Your task to perform on an android device: open app "LinkedIn" (install if not already installed) and go to login screen Image 0: 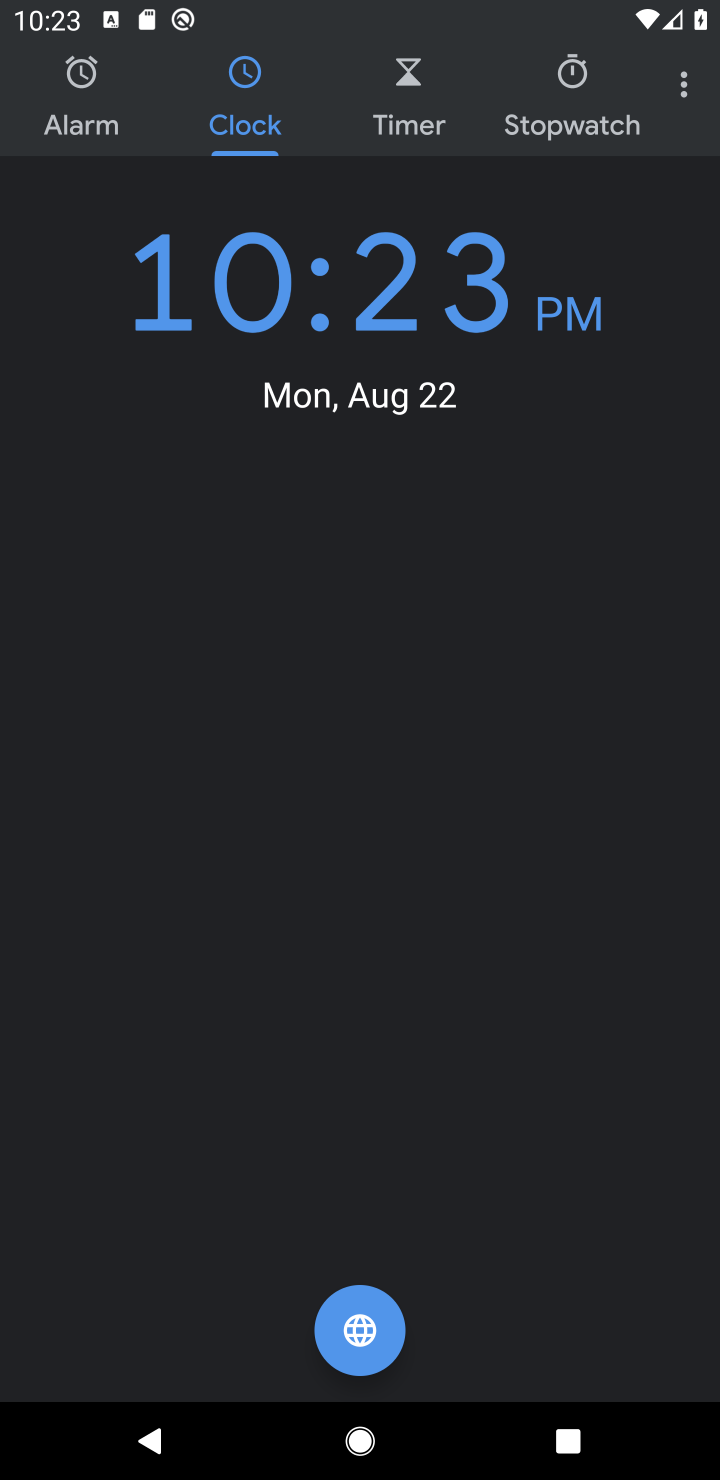
Step 0: press back button
Your task to perform on an android device: open app "LinkedIn" (install if not already installed) and go to login screen Image 1: 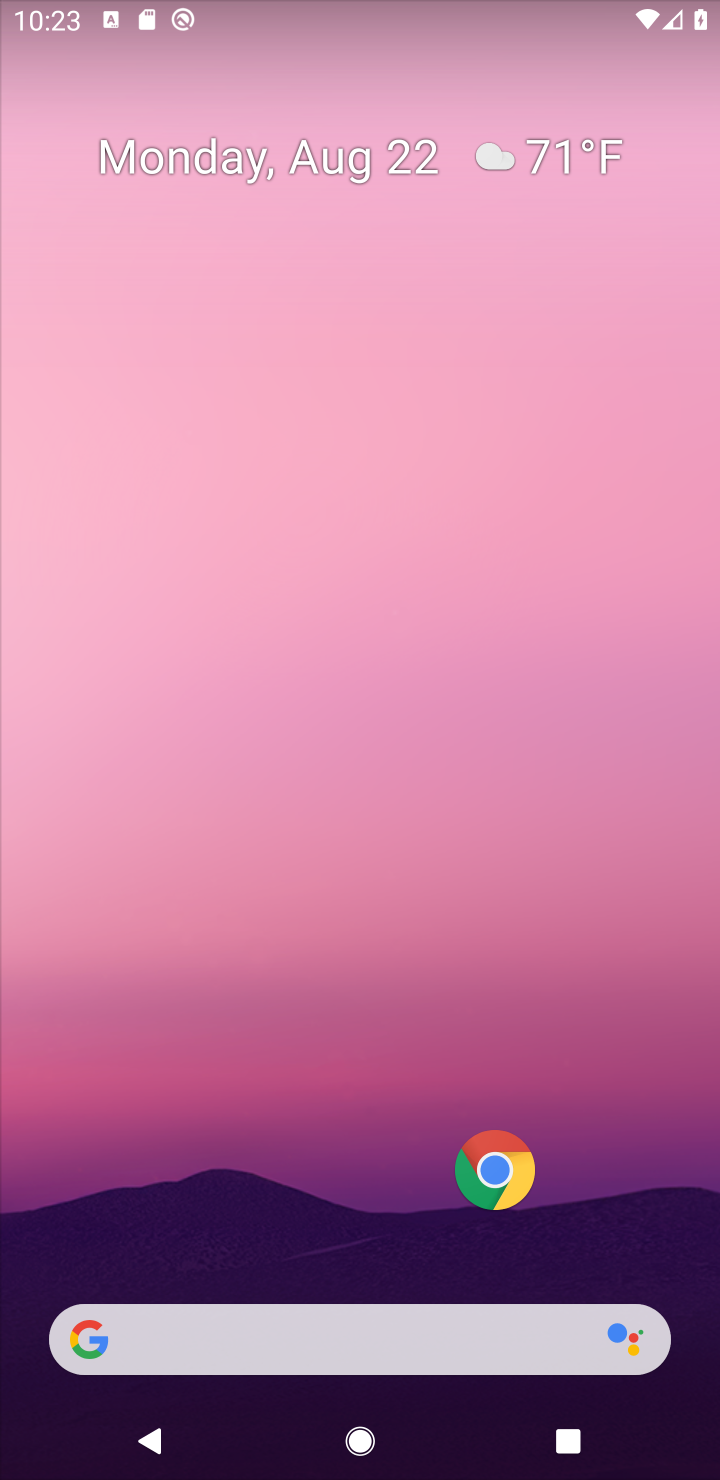
Step 1: drag from (374, 631) to (487, 28)
Your task to perform on an android device: open app "LinkedIn" (install if not already installed) and go to login screen Image 2: 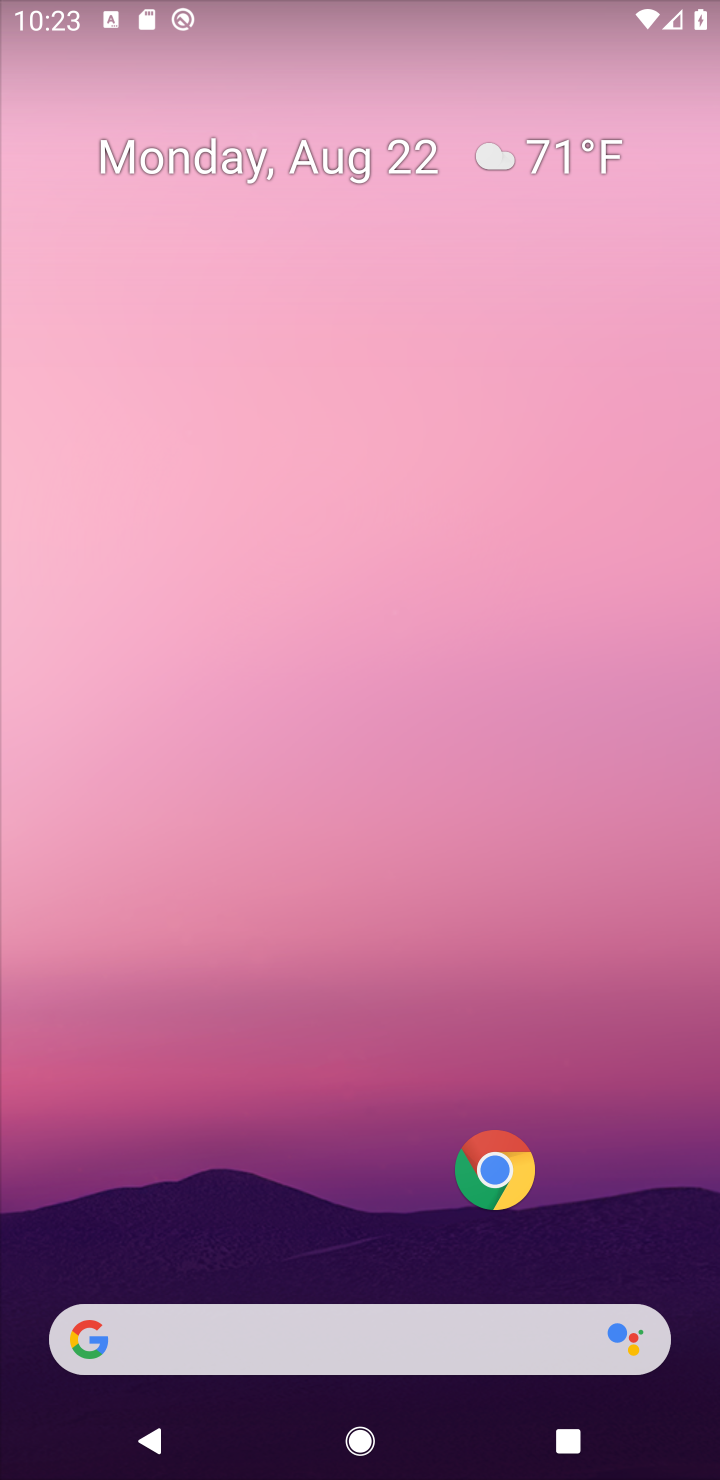
Step 2: drag from (217, 1234) to (388, 73)
Your task to perform on an android device: open app "LinkedIn" (install if not already installed) and go to login screen Image 3: 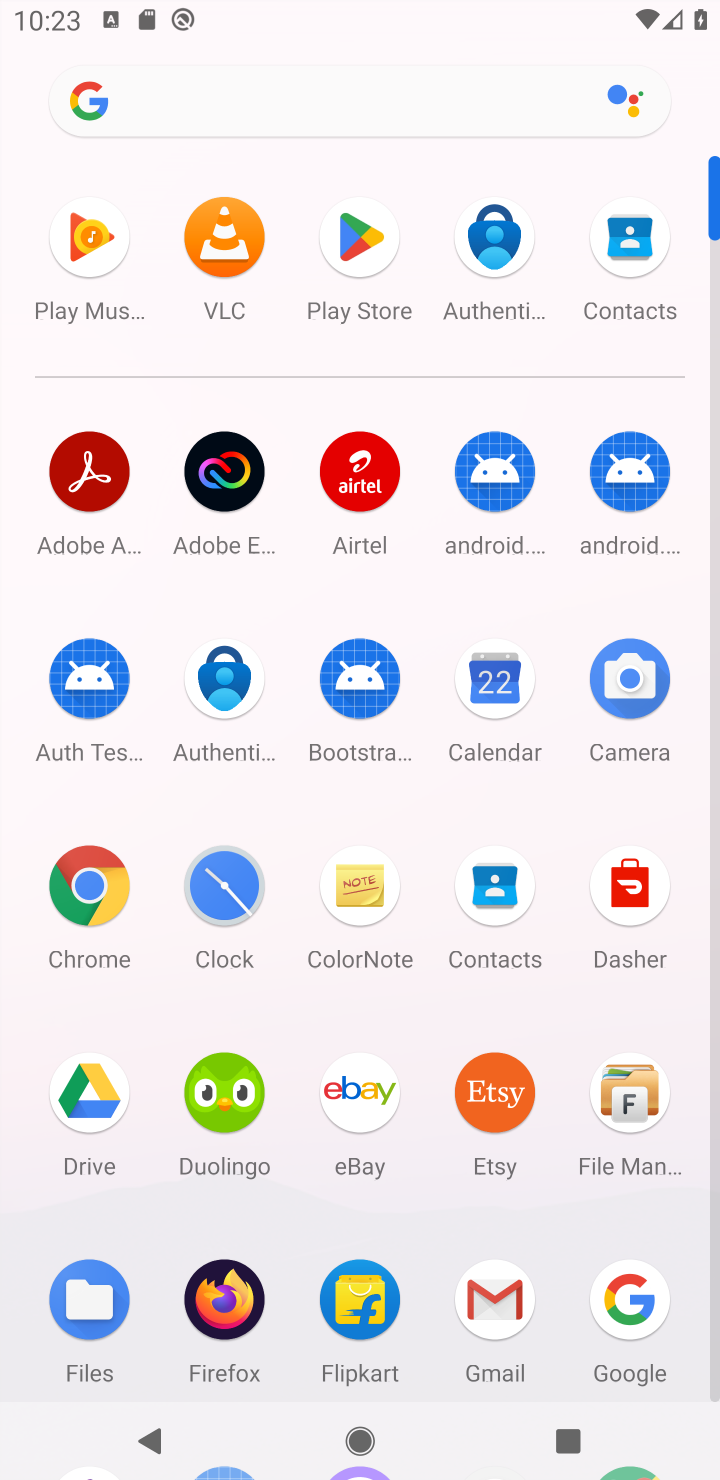
Step 3: click (362, 227)
Your task to perform on an android device: open app "LinkedIn" (install if not already installed) and go to login screen Image 4: 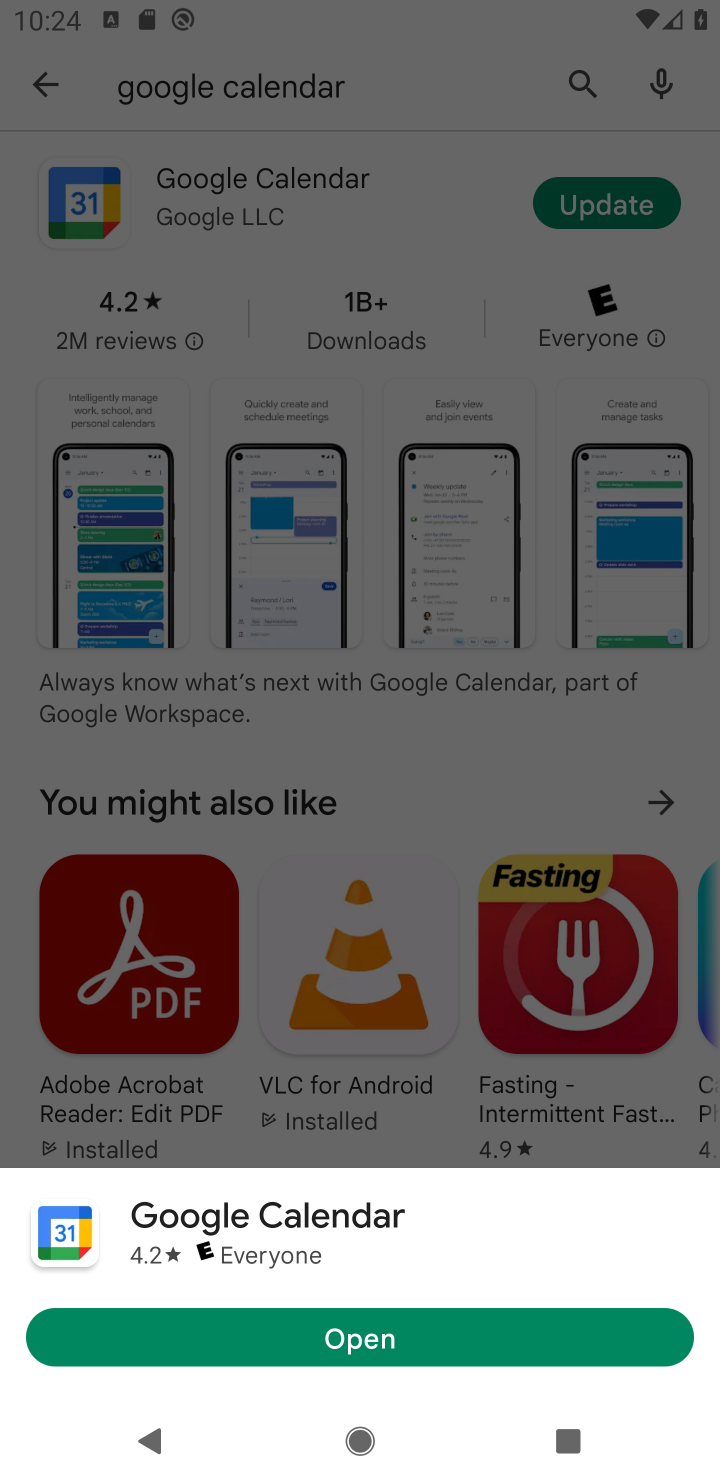
Step 4: click (586, 65)
Your task to perform on an android device: open app "LinkedIn" (install if not already installed) and go to login screen Image 5: 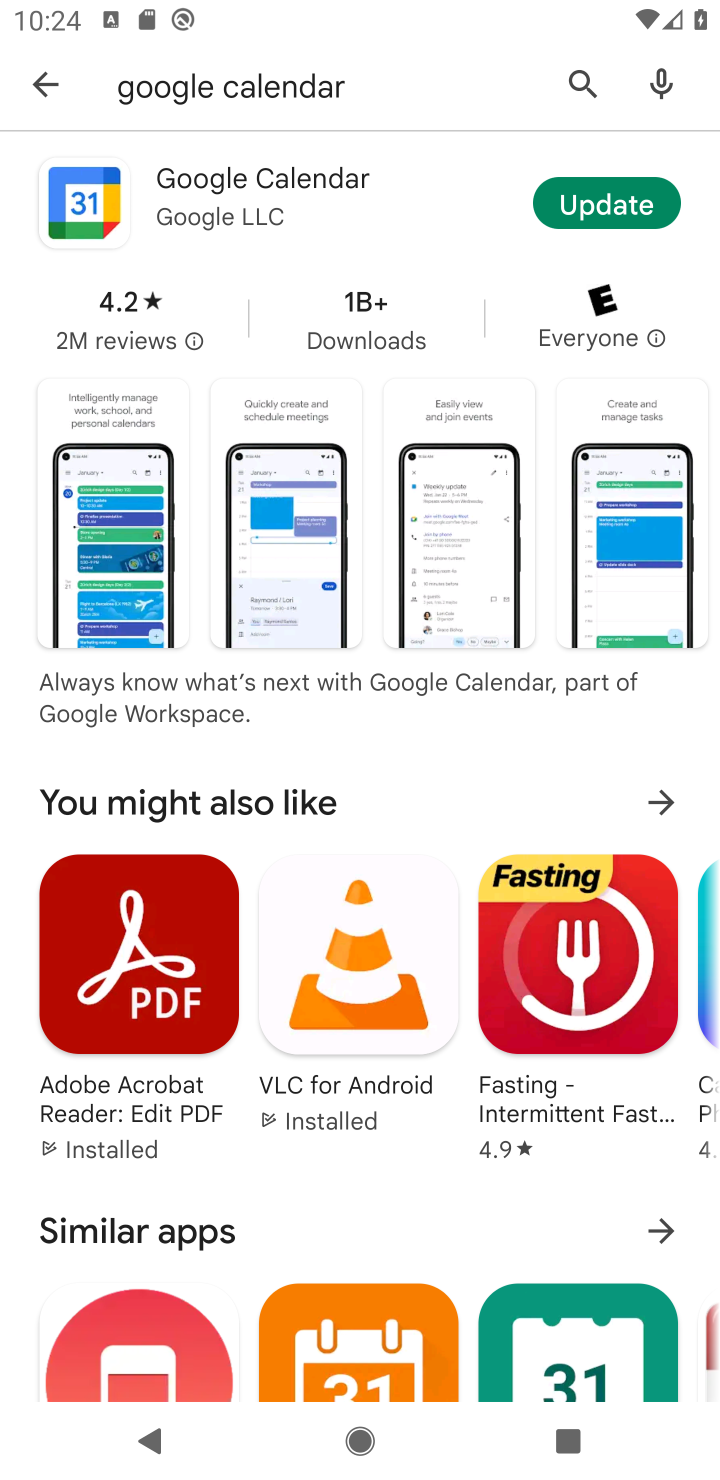
Step 5: click (586, 73)
Your task to perform on an android device: open app "LinkedIn" (install if not already installed) and go to login screen Image 6: 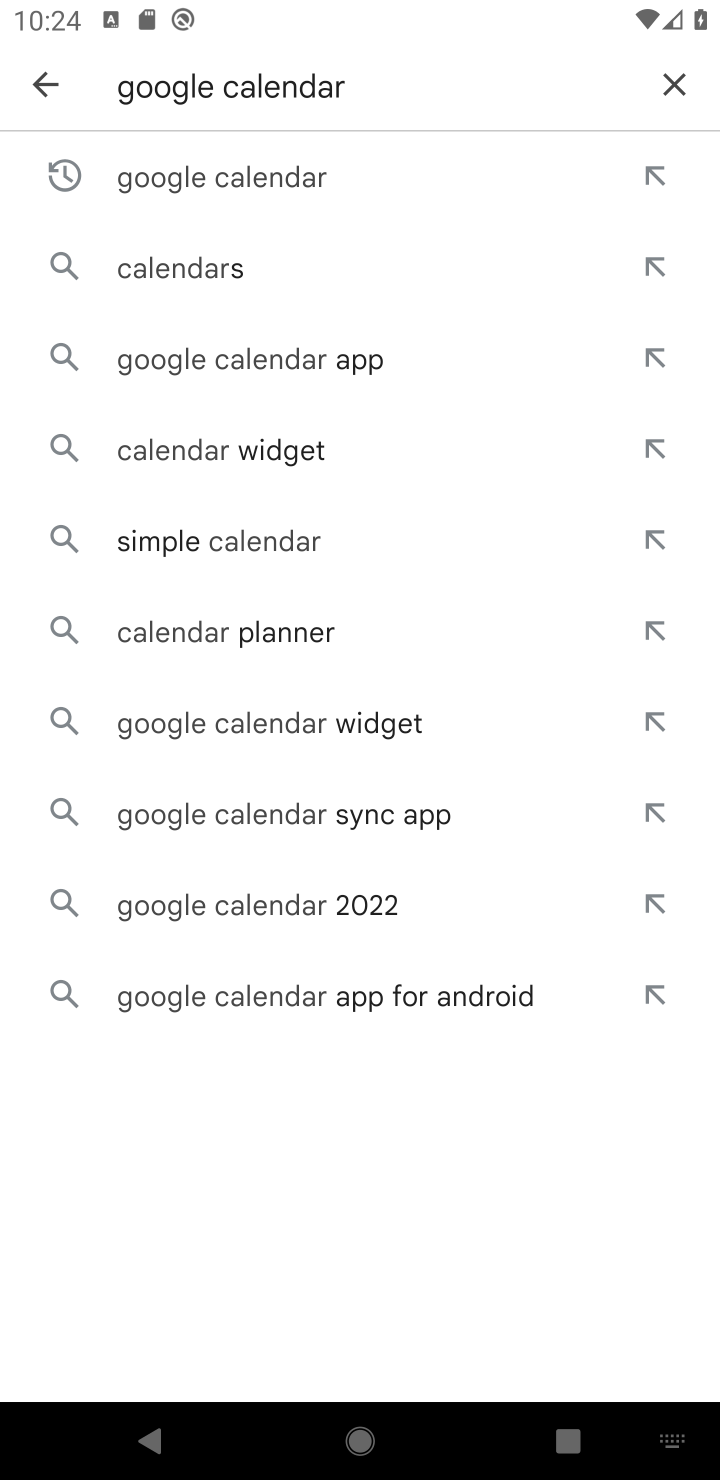
Step 6: click (695, 73)
Your task to perform on an android device: open app "LinkedIn" (install if not already installed) and go to login screen Image 7: 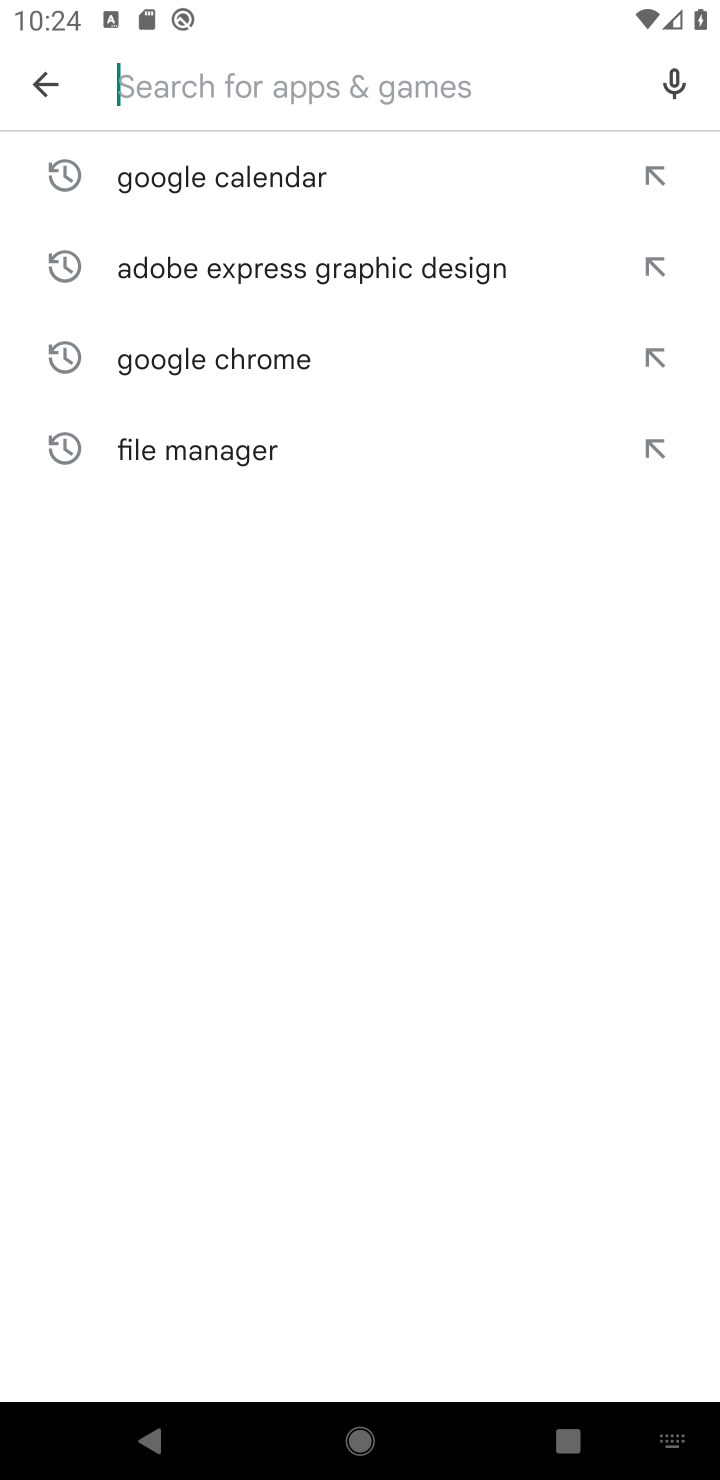
Step 7: click (169, 69)
Your task to perform on an android device: open app "LinkedIn" (install if not already installed) and go to login screen Image 8: 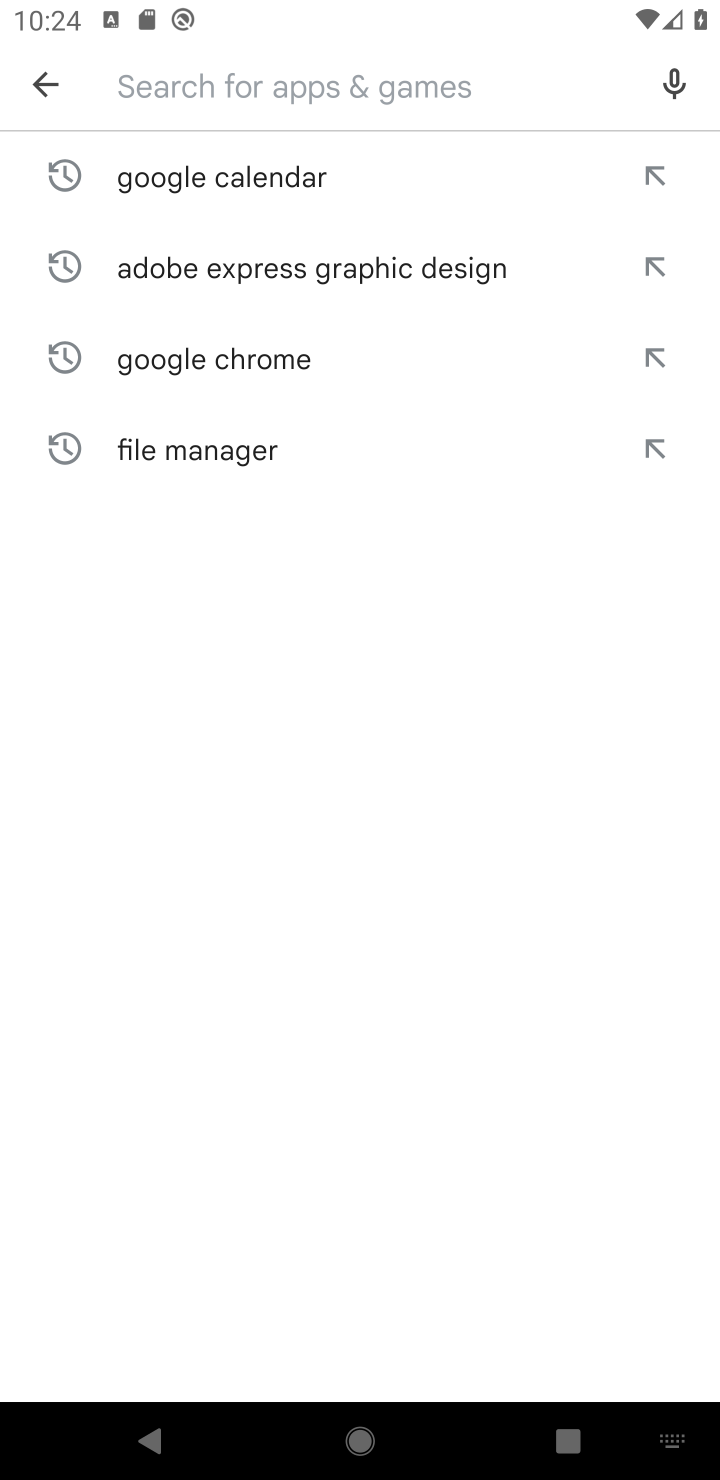
Step 8: type "LinkedIn"
Your task to perform on an android device: open app "LinkedIn" (install if not already installed) and go to login screen Image 9: 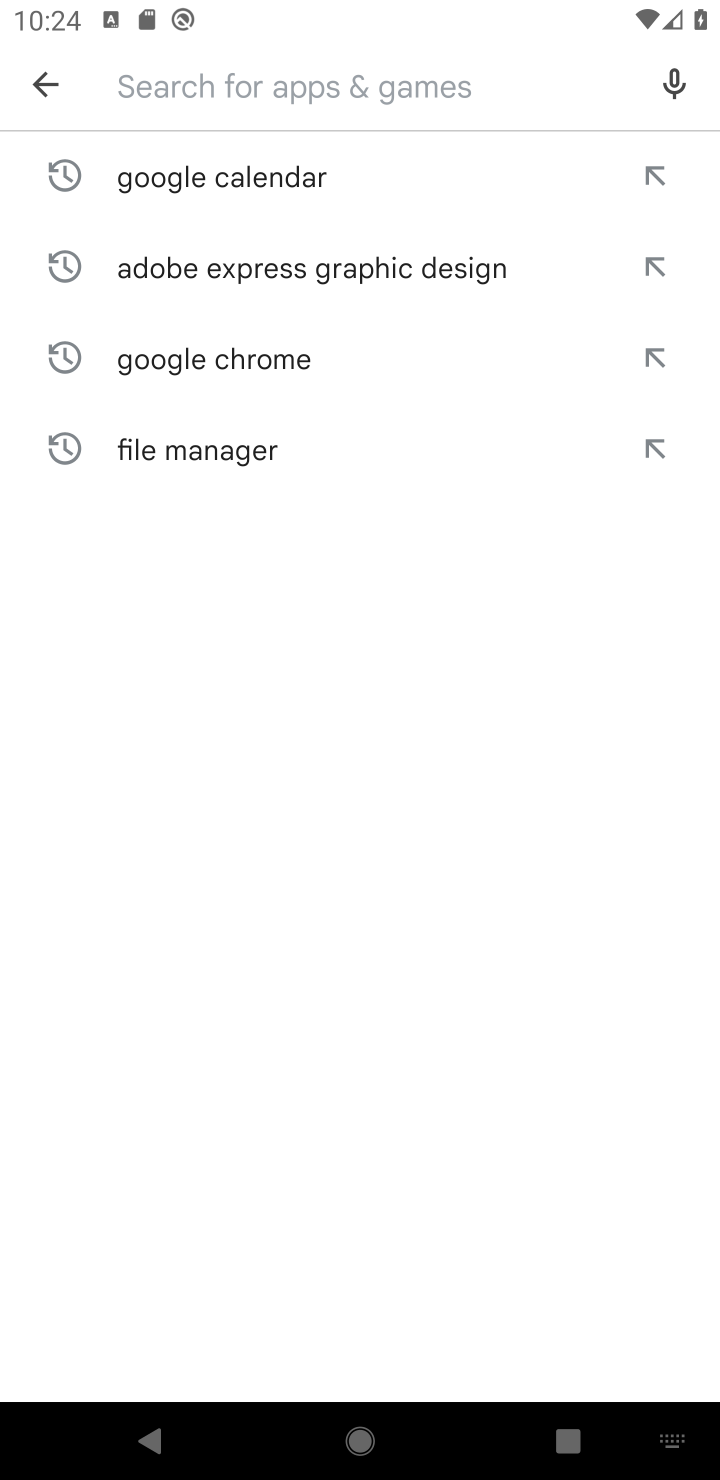
Step 9: click (381, 944)
Your task to perform on an android device: open app "LinkedIn" (install if not already installed) and go to login screen Image 10: 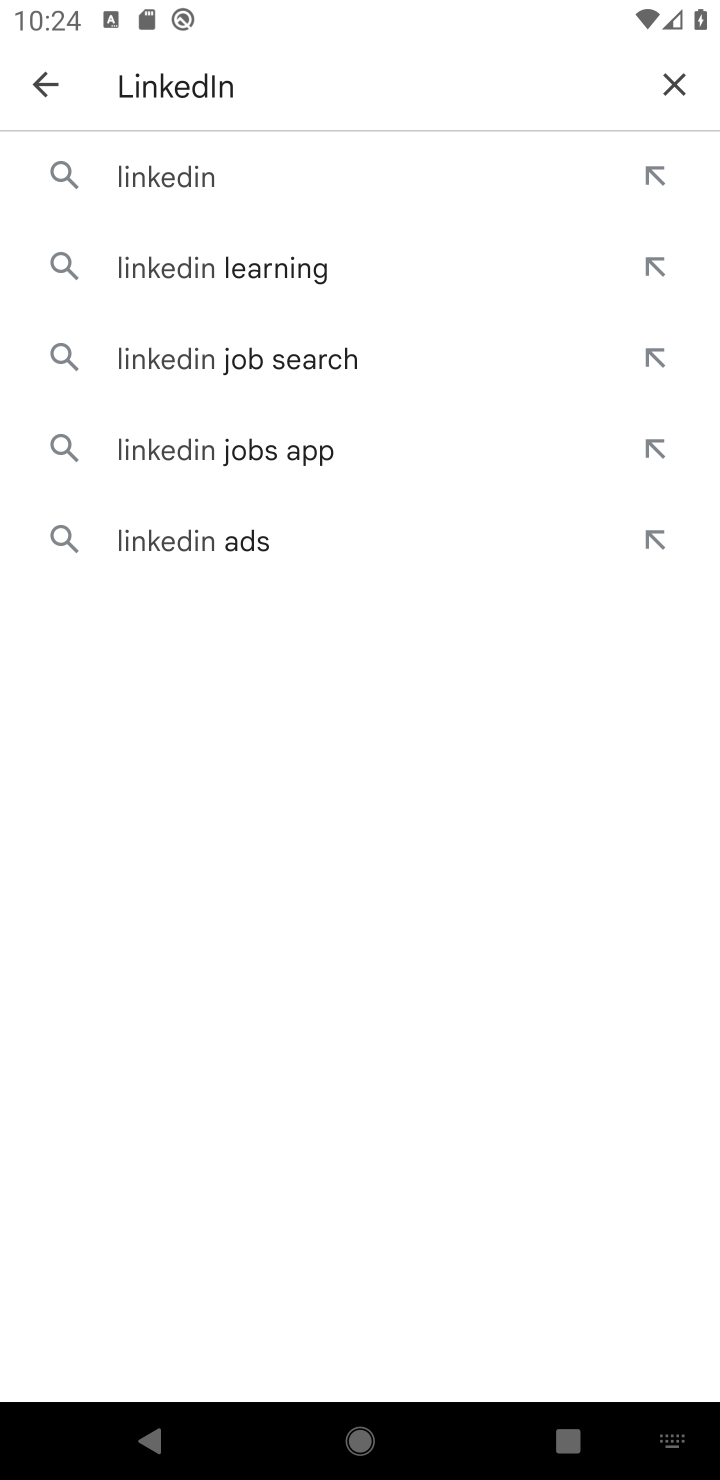
Step 10: click (195, 173)
Your task to perform on an android device: open app "LinkedIn" (install if not already installed) and go to login screen Image 11: 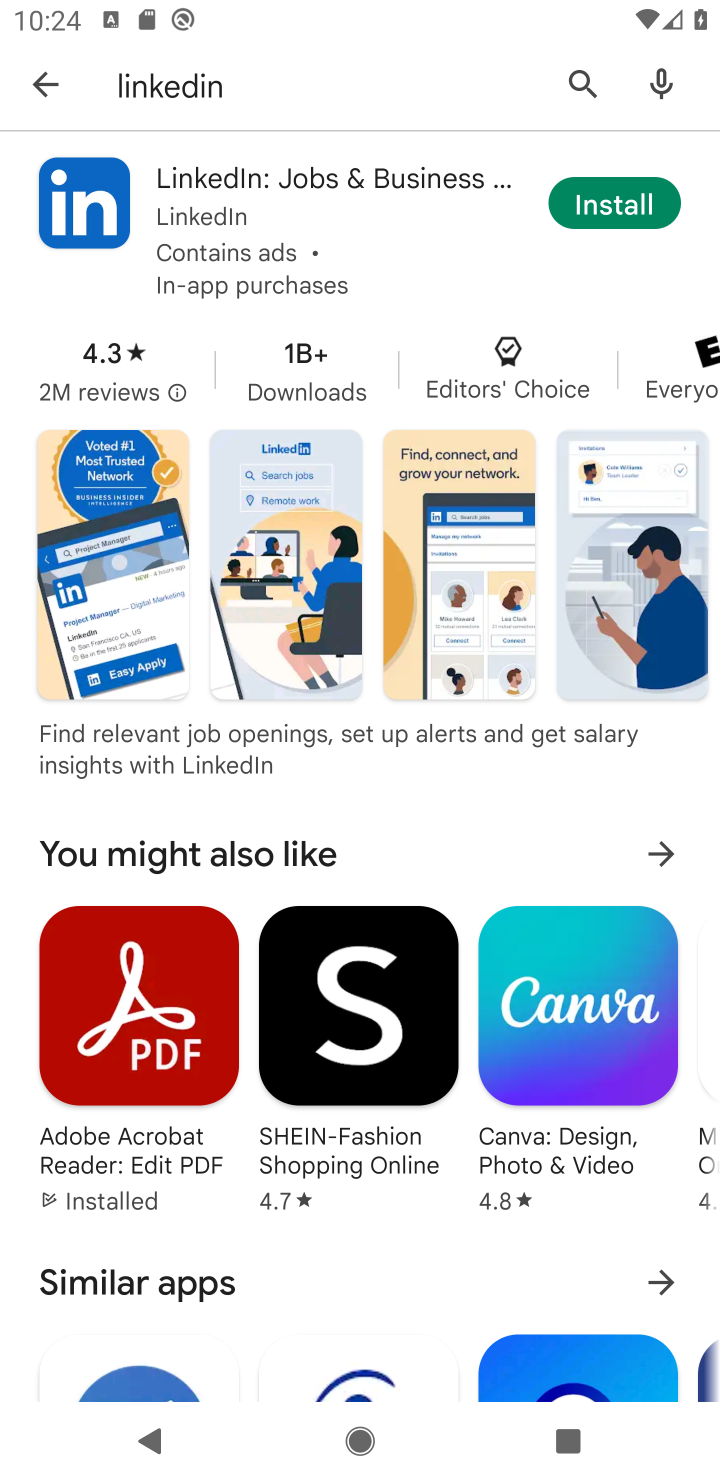
Step 11: click (589, 195)
Your task to perform on an android device: open app "LinkedIn" (install if not already installed) and go to login screen Image 12: 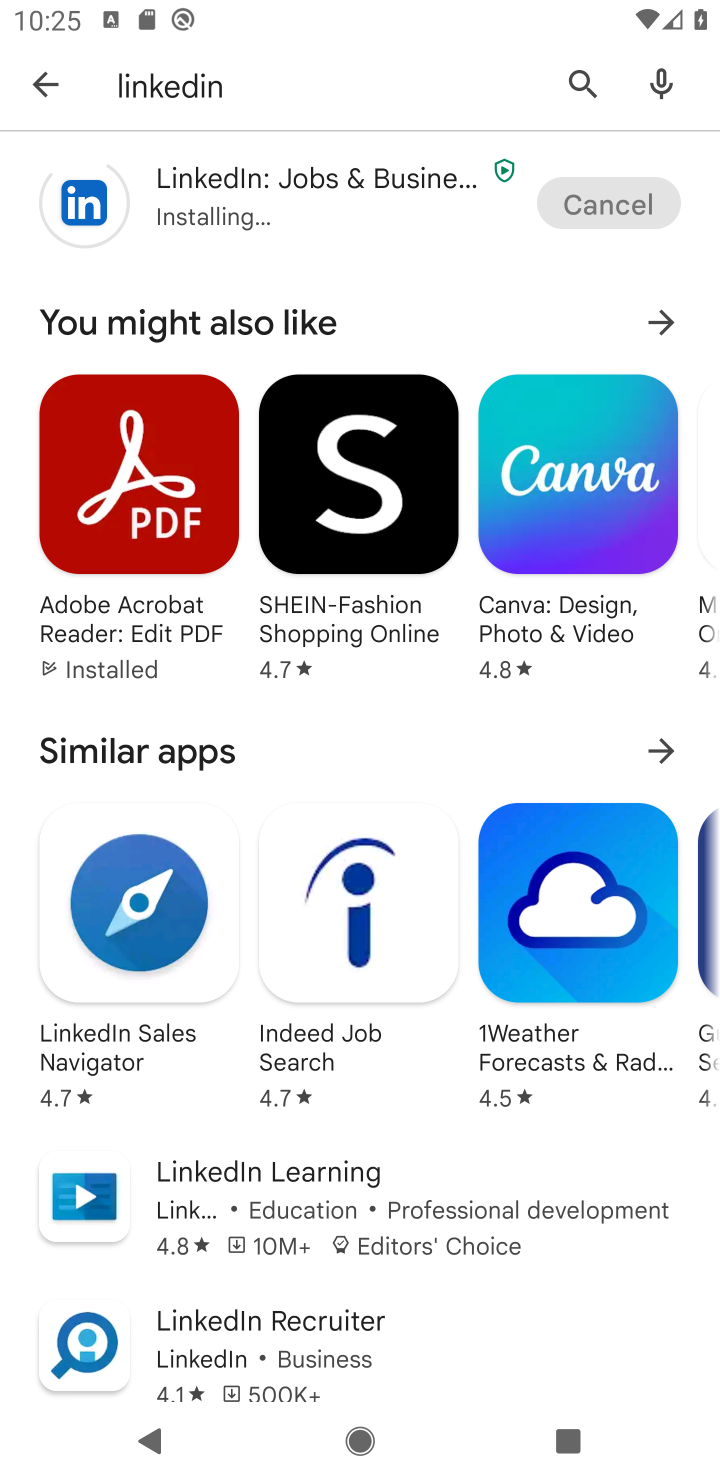
Step 12: press back button
Your task to perform on an android device: open app "LinkedIn" (install if not already installed) and go to login screen Image 13: 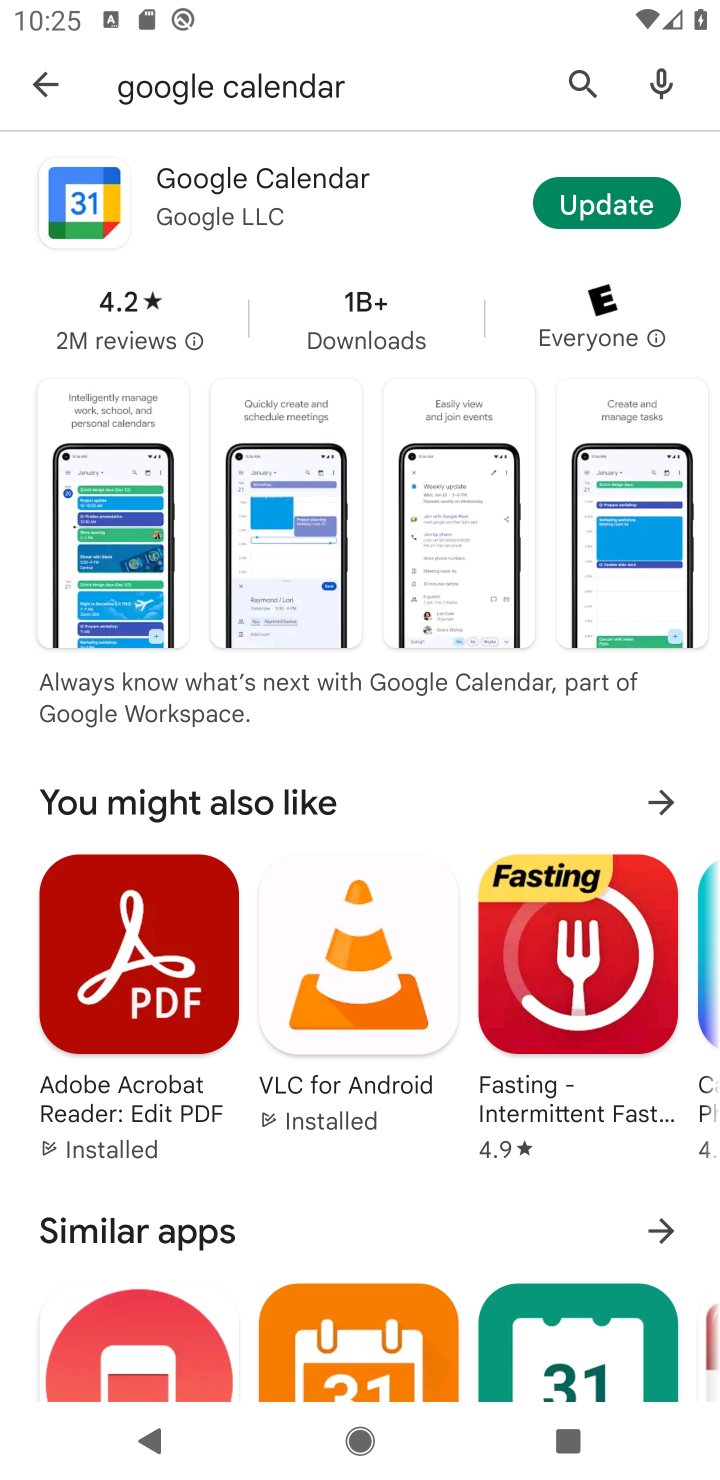
Step 13: click (567, 67)
Your task to perform on an android device: open app "LinkedIn" (install if not already installed) and go to login screen Image 14: 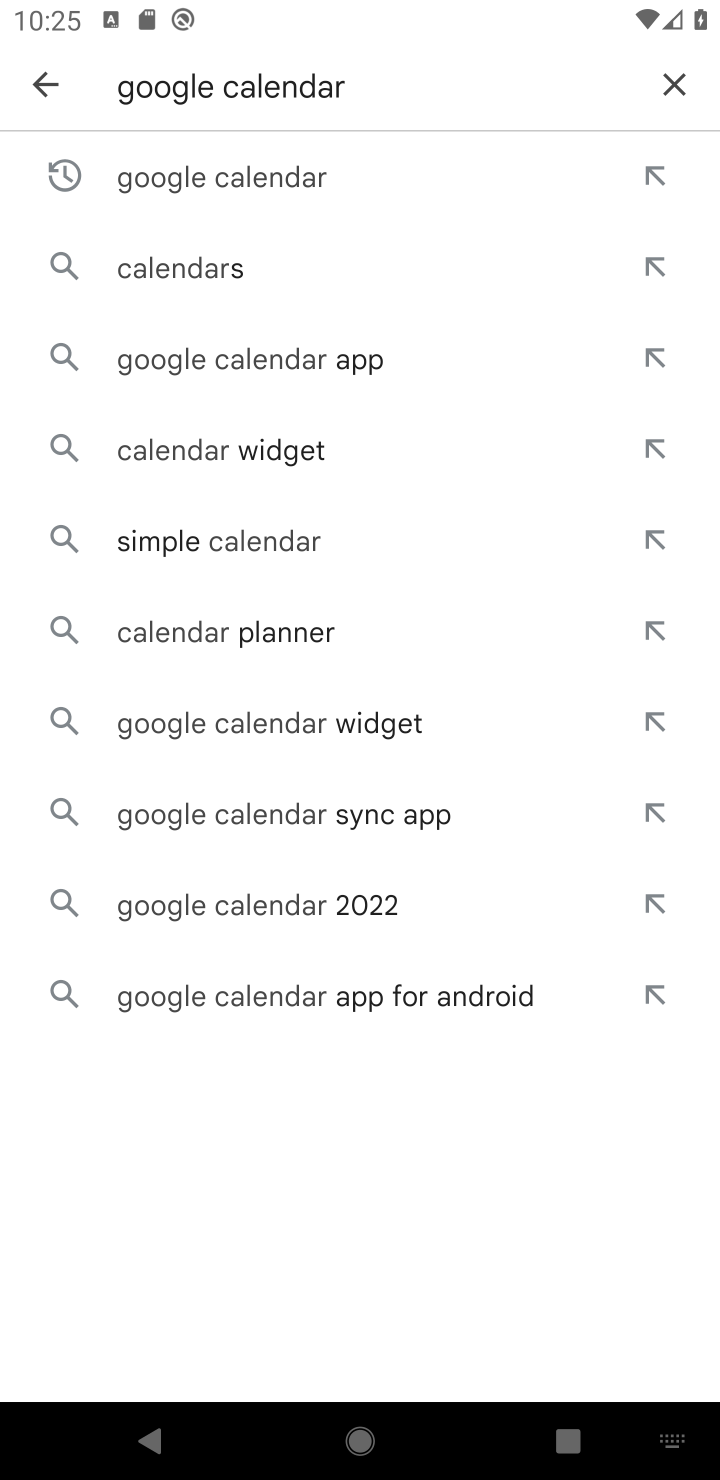
Step 14: click (664, 86)
Your task to perform on an android device: open app "LinkedIn" (install if not already installed) and go to login screen Image 15: 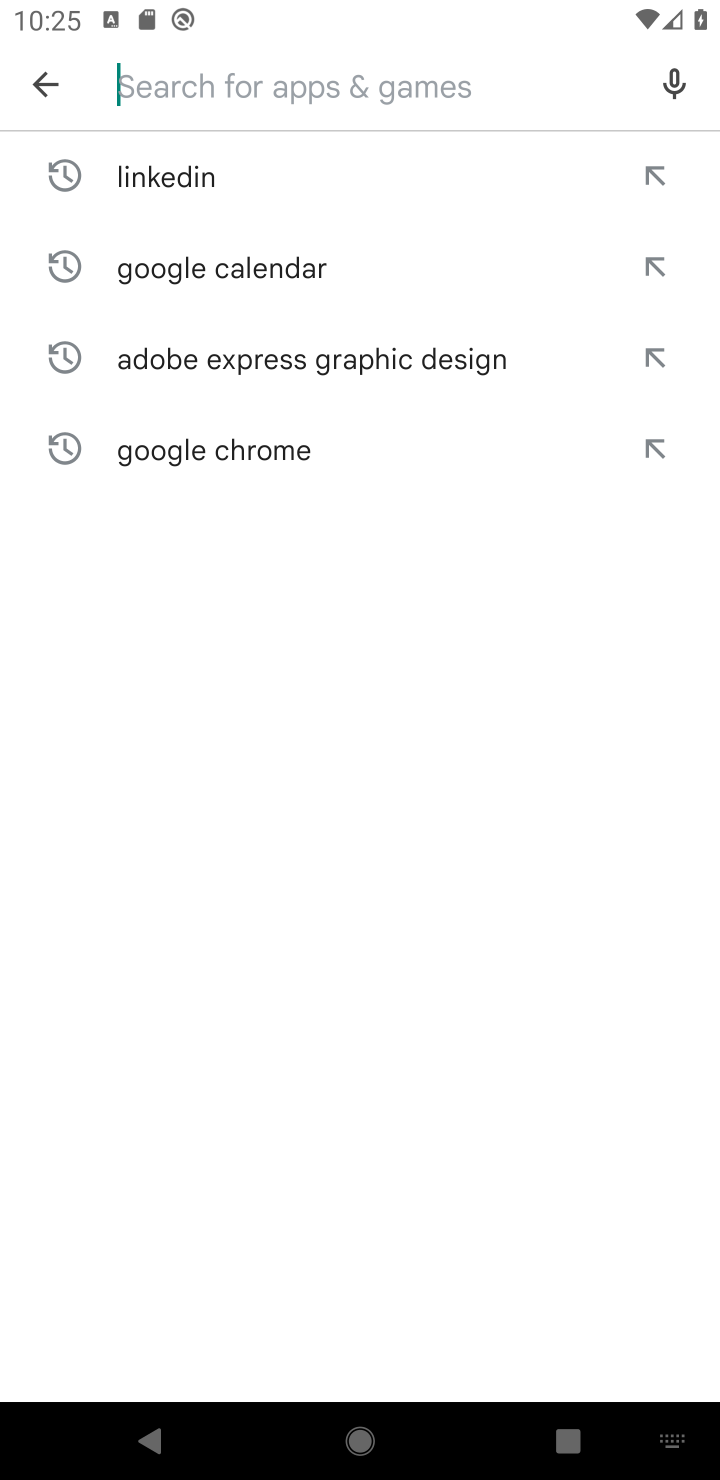
Step 15: click (192, 178)
Your task to perform on an android device: open app "LinkedIn" (install if not already installed) and go to login screen Image 16: 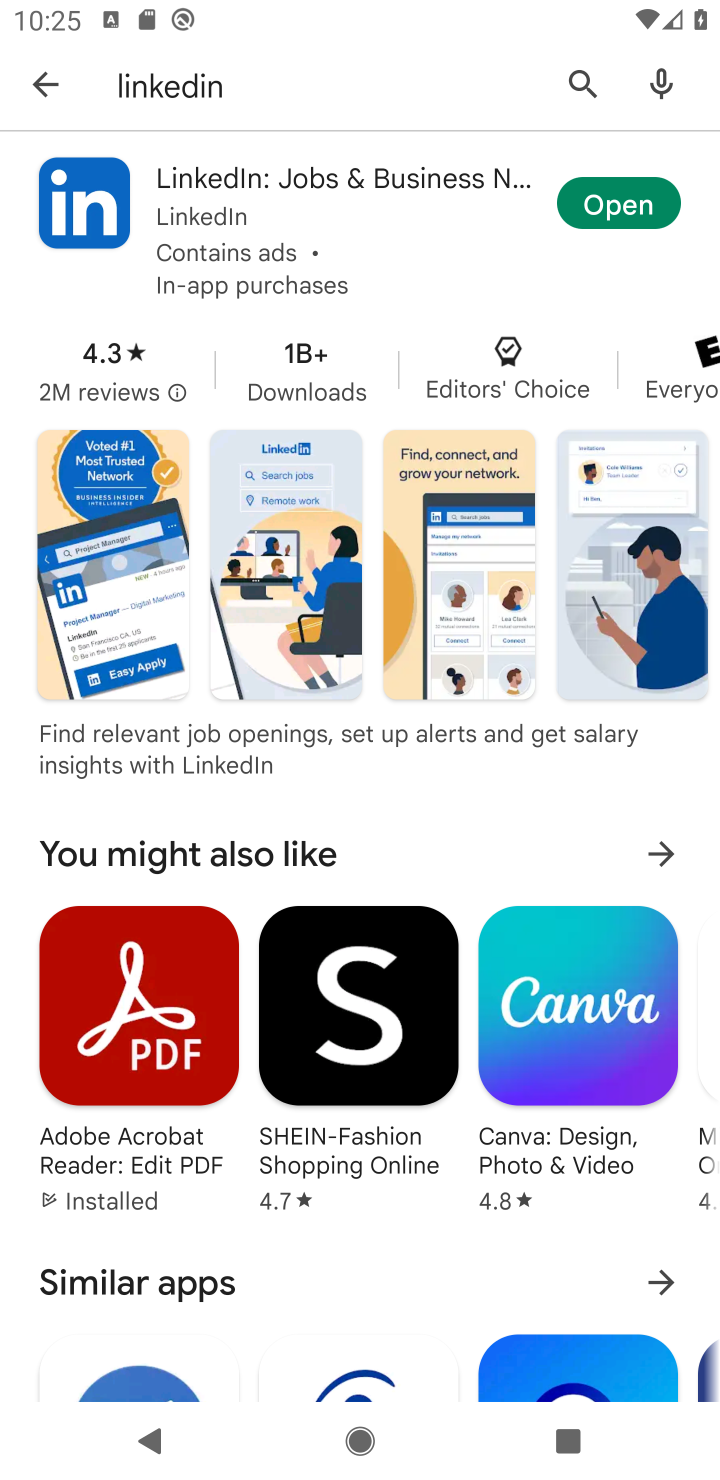
Step 16: click (640, 219)
Your task to perform on an android device: open app "LinkedIn" (install if not already installed) and go to login screen Image 17: 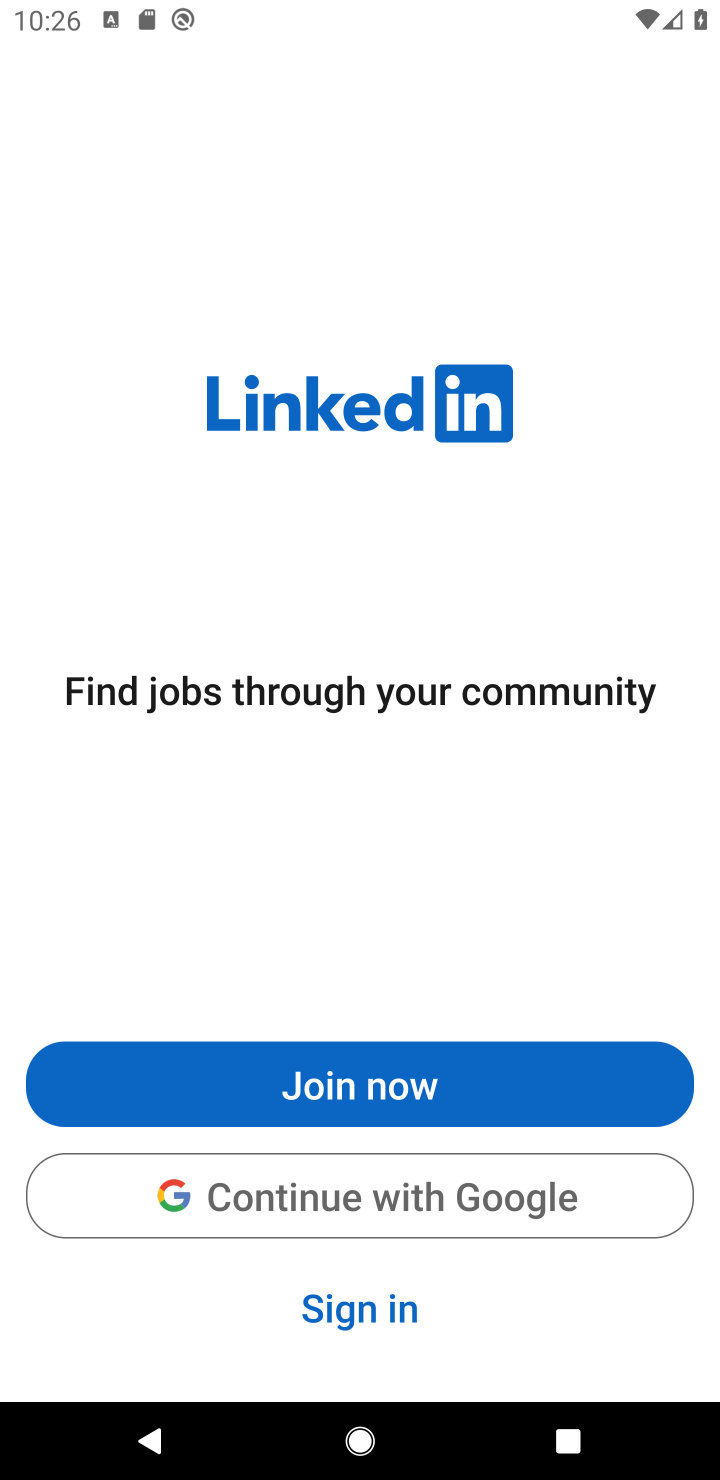
Step 17: click (404, 1315)
Your task to perform on an android device: open app "LinkedIn" (install if not already installed) and go to login screen Image 18: 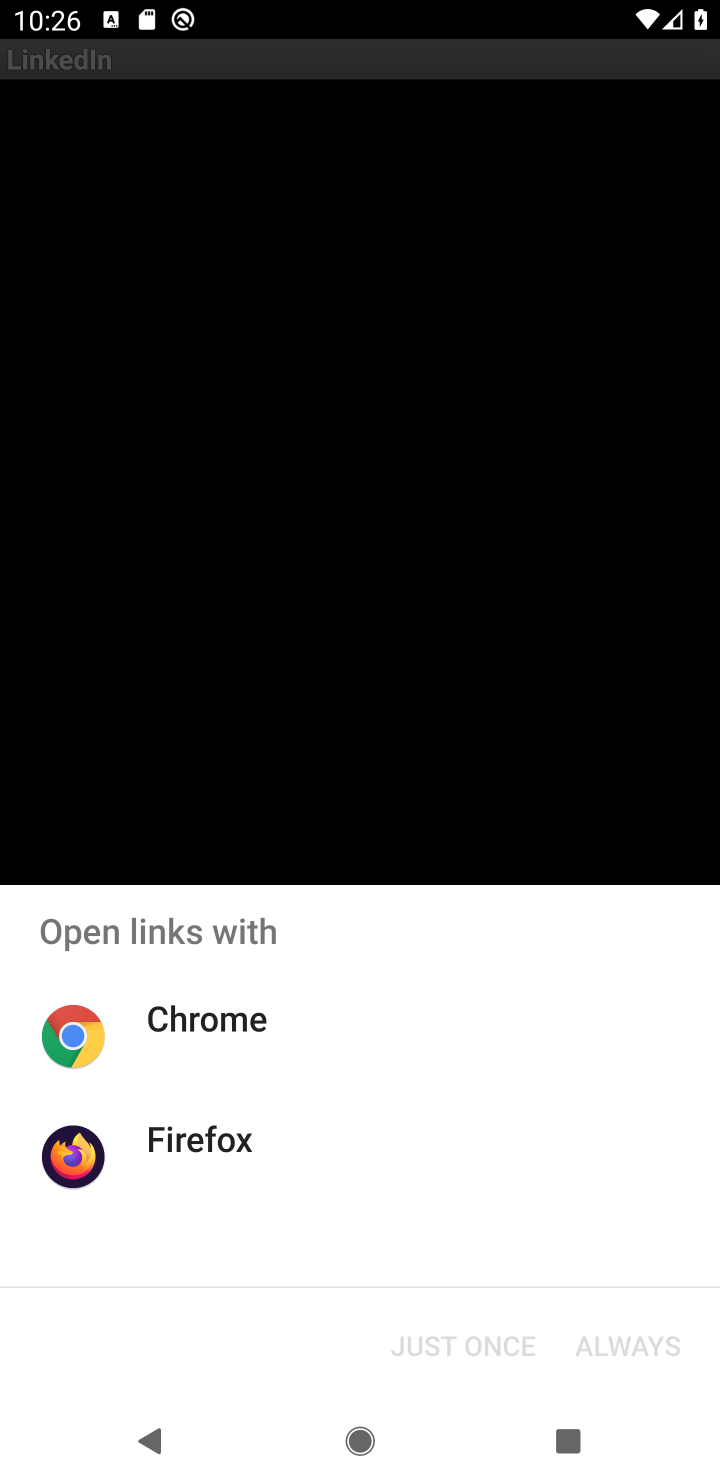
Step 18: click (202, 998)
Your task to perform on an android device: open app "LinkedIn" (install if not already installed) and go to login screen Image 19: 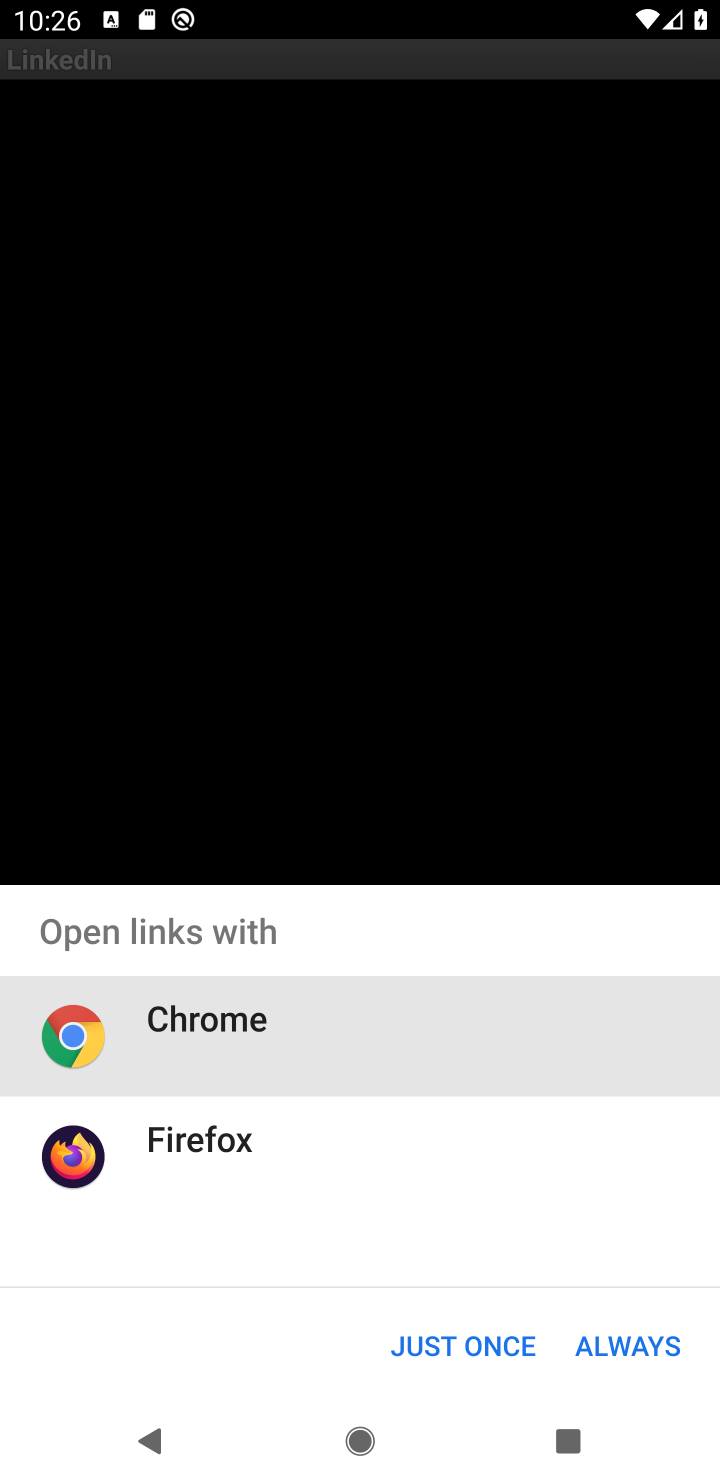
Step 19: click (420, 1352)
Your task to perform on an android device: open app "LinkedIn" (install if not already installed) and go to login screen Image 20: 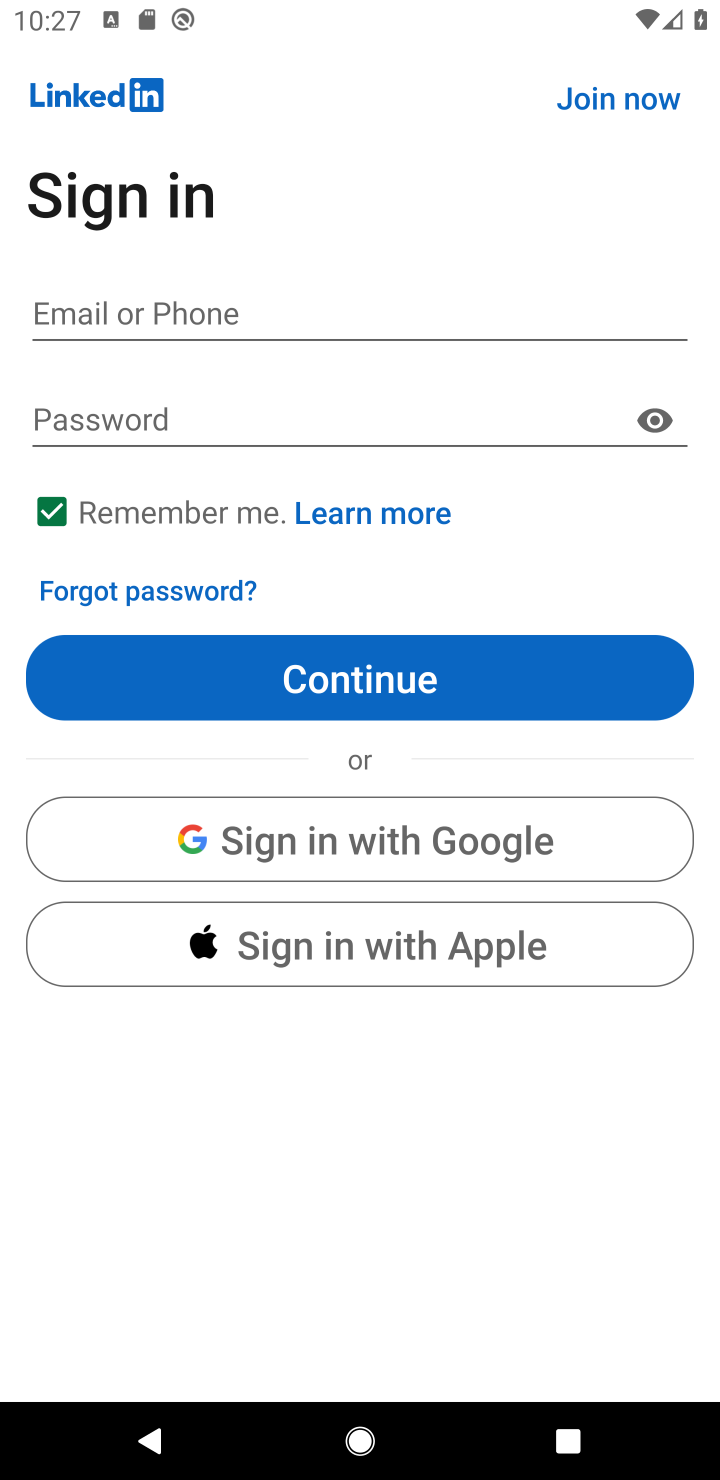
Step 20: task complete